Your task to perform on an android device: open app "LinkedIn" Image 0: 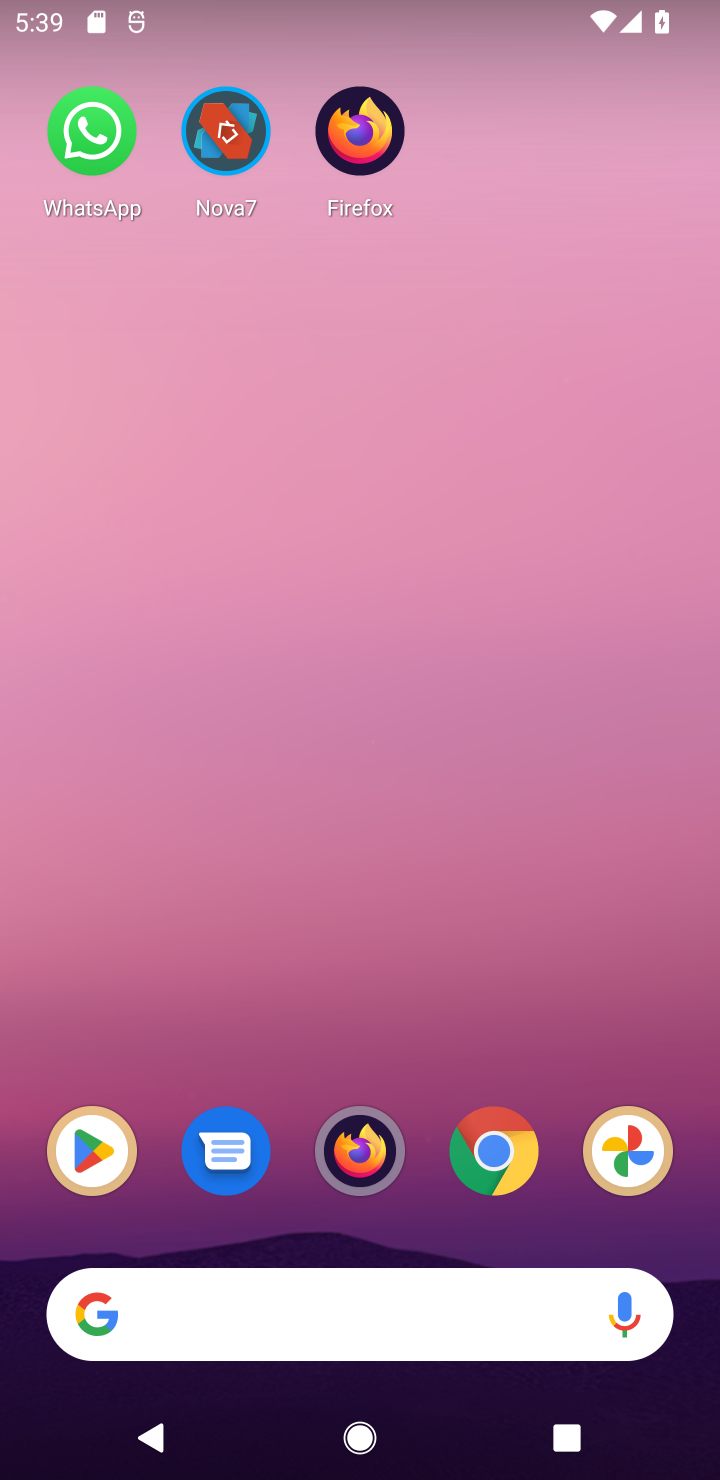
Step 0: click (95, 1154)
Your task to perform on an android device: open app "LinkedIn" Image 1: 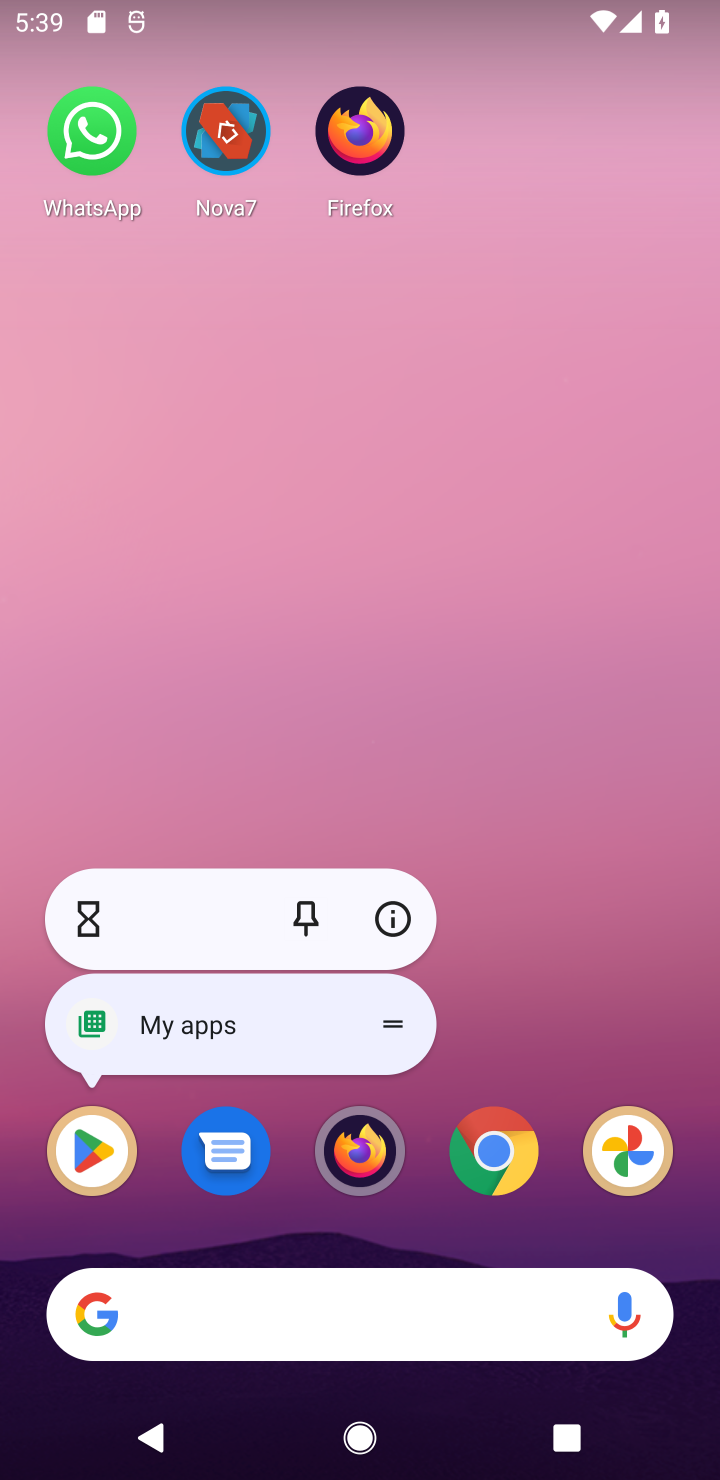
Step 1: click (95, 1154)
Your task to perform on an android device: open app "LinkedIn" Image 2: 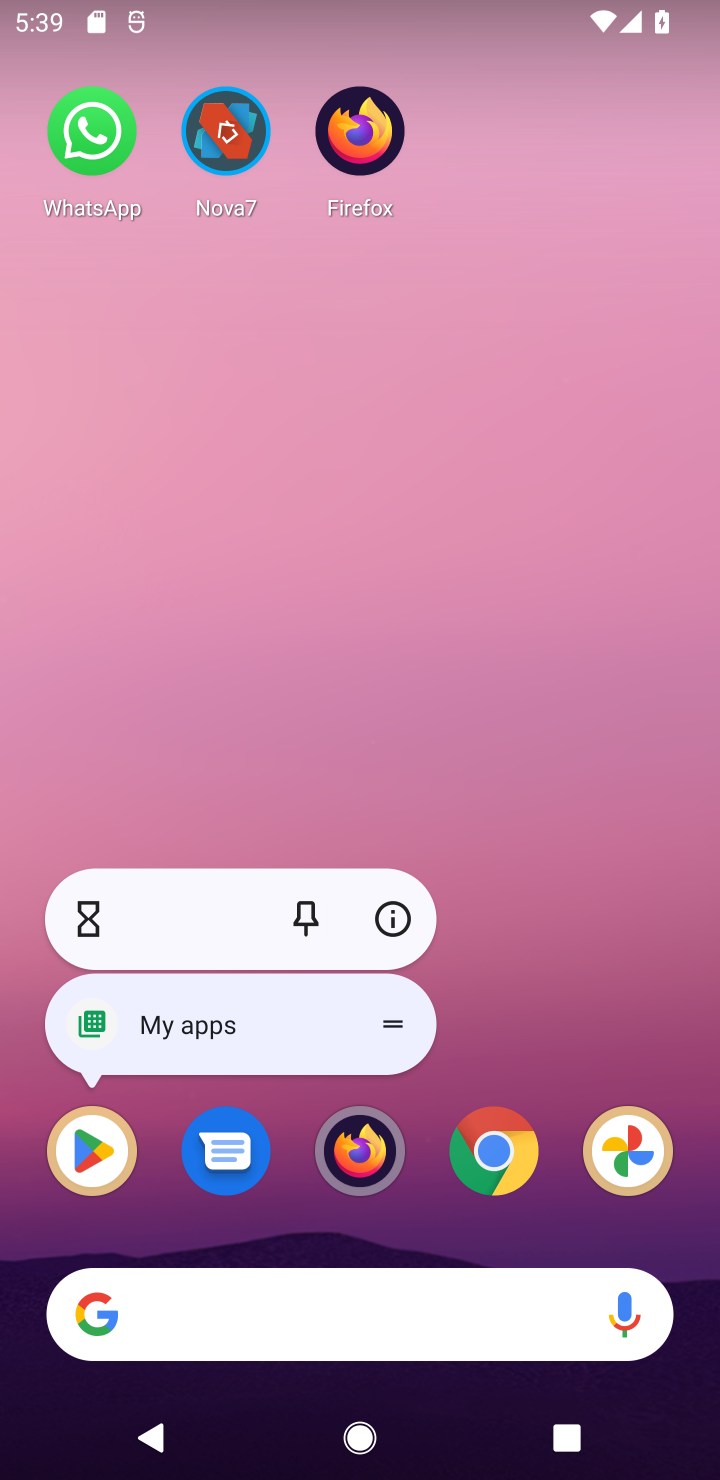
Step 2: click (91, 1168)
Your task to perform on an android device: open app "LinkedIn" Image 3: 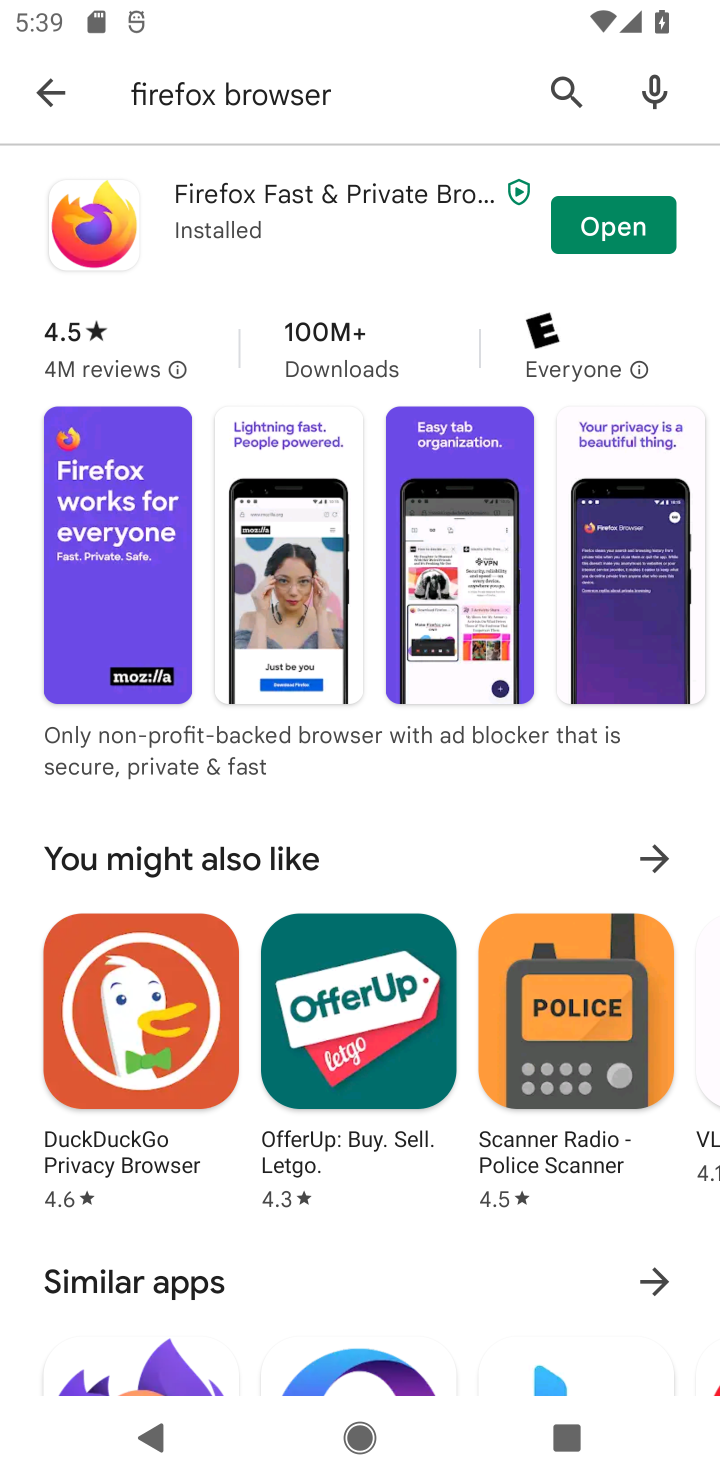
Step 3: click (572, 85)
Your task to perform on an android device: open app "LinkedIn" Image 4: 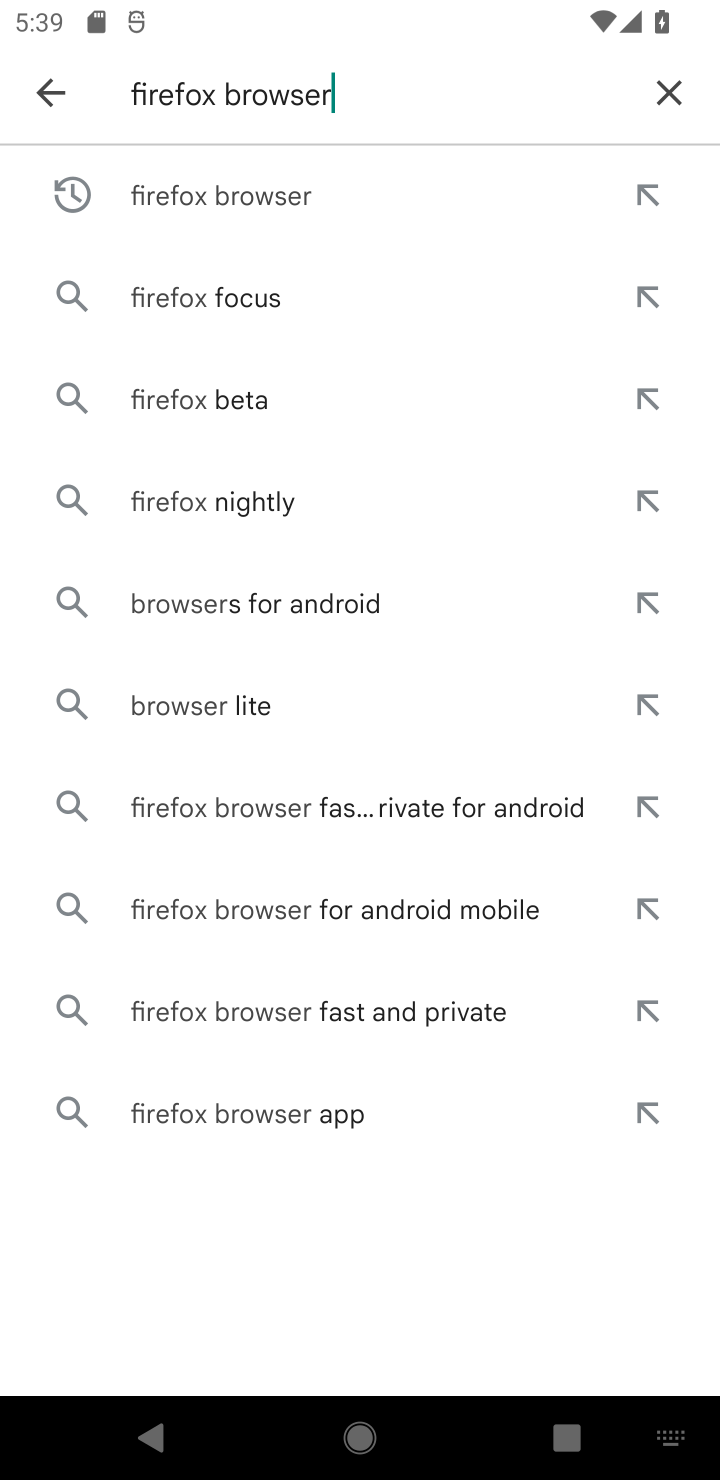
Step 4: click (665, 107)
Your task to perform on an android device: open app "LinkedIn" Image 5: 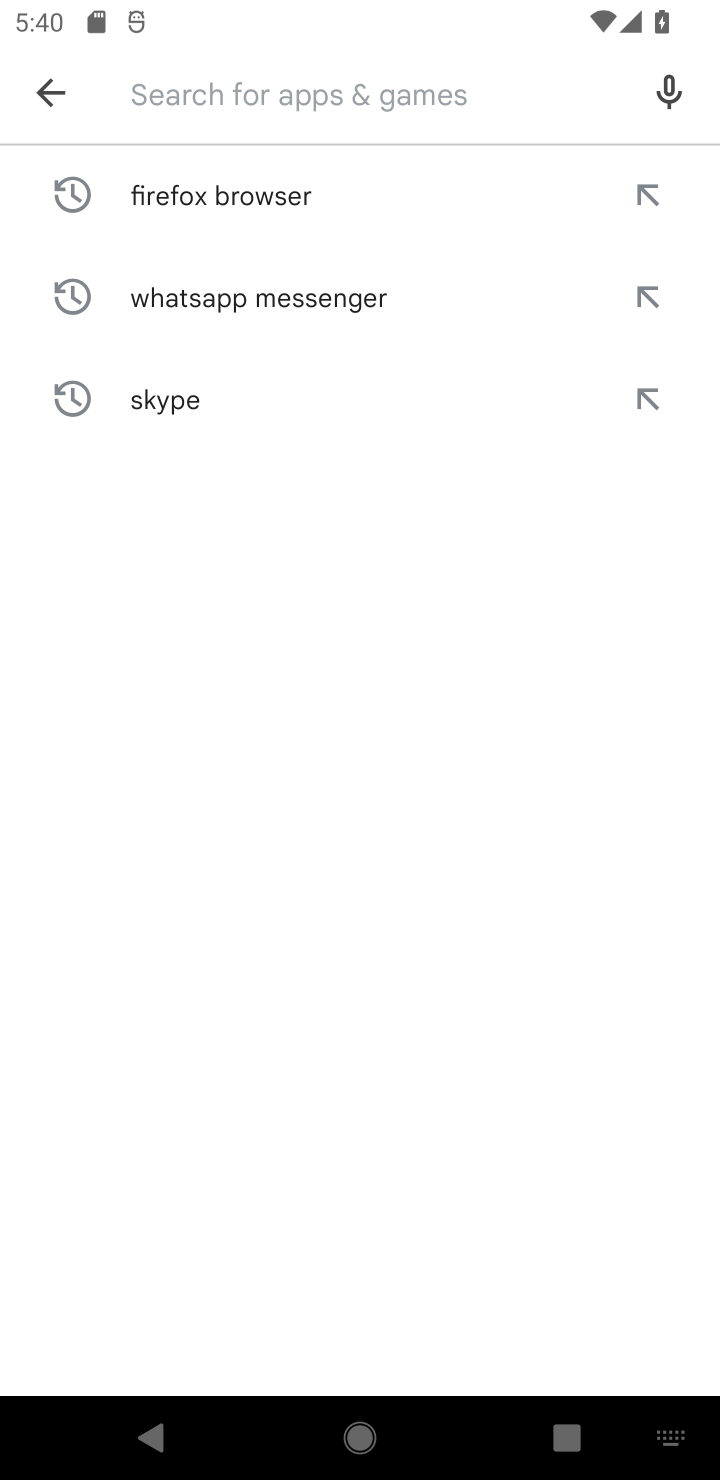
Step 5: type "LinkedIn"
Your task to perform on an android device: open app "LinkedIn" Image 6: 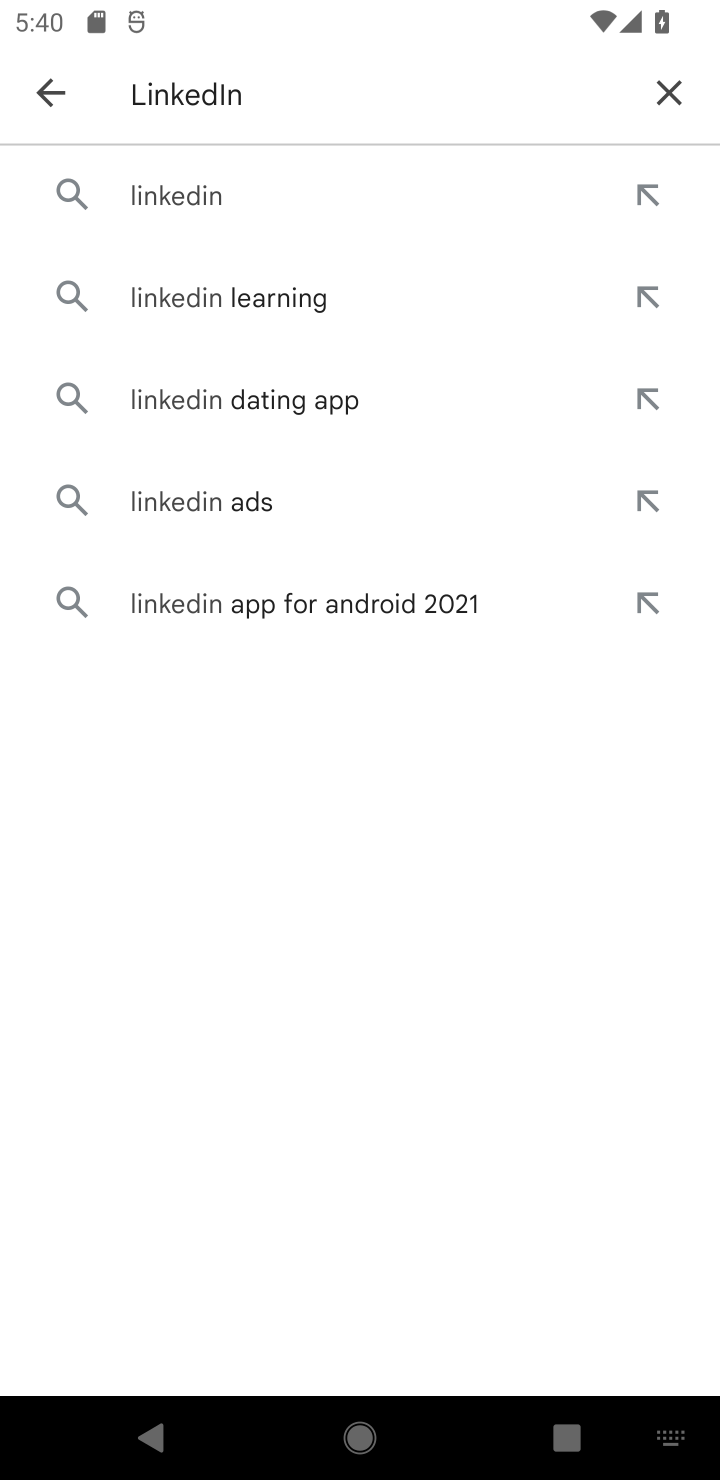
Step 6: click (189, 199)
Your task to perform on an android device: open app "LinkedIn" Image 7: 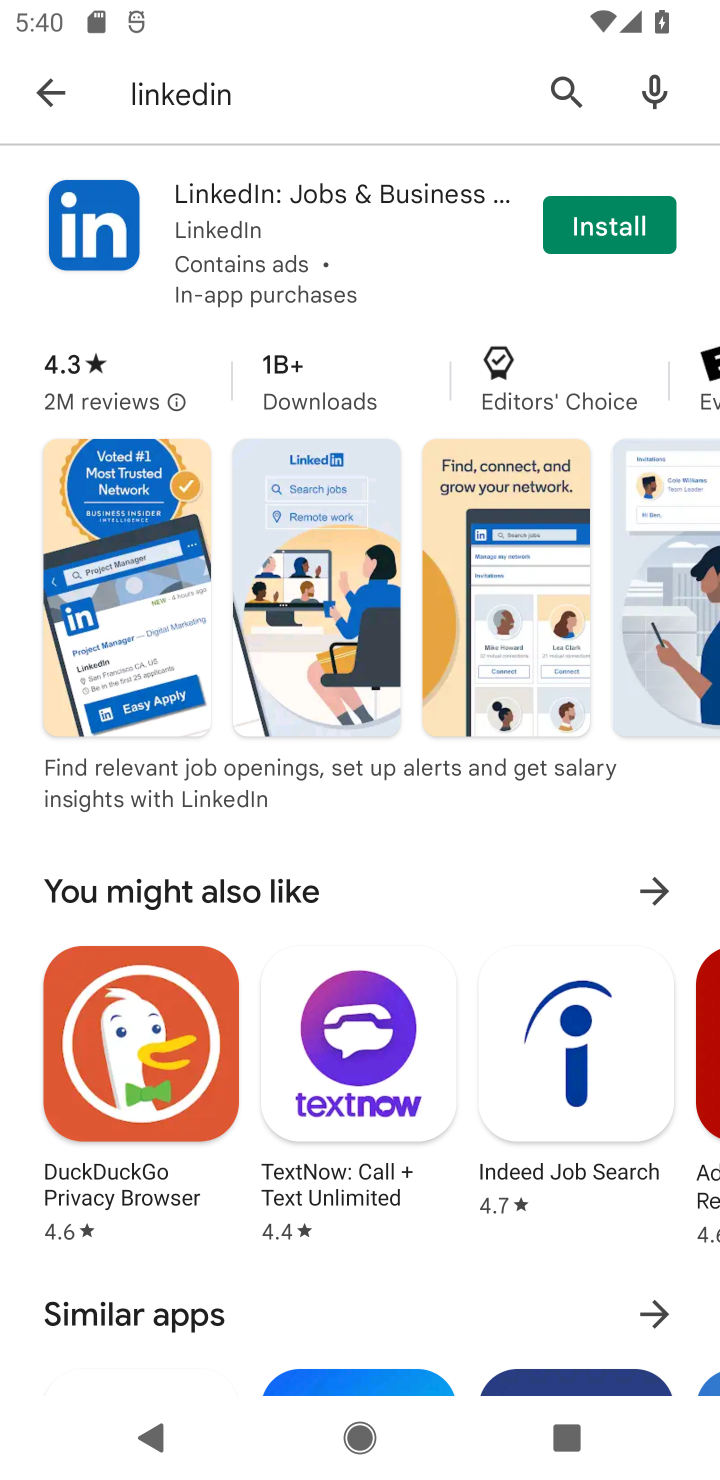
Step 7: task complete